Your task to perform on an android device: open app "DoorDash - Food Delivery" Image 0: 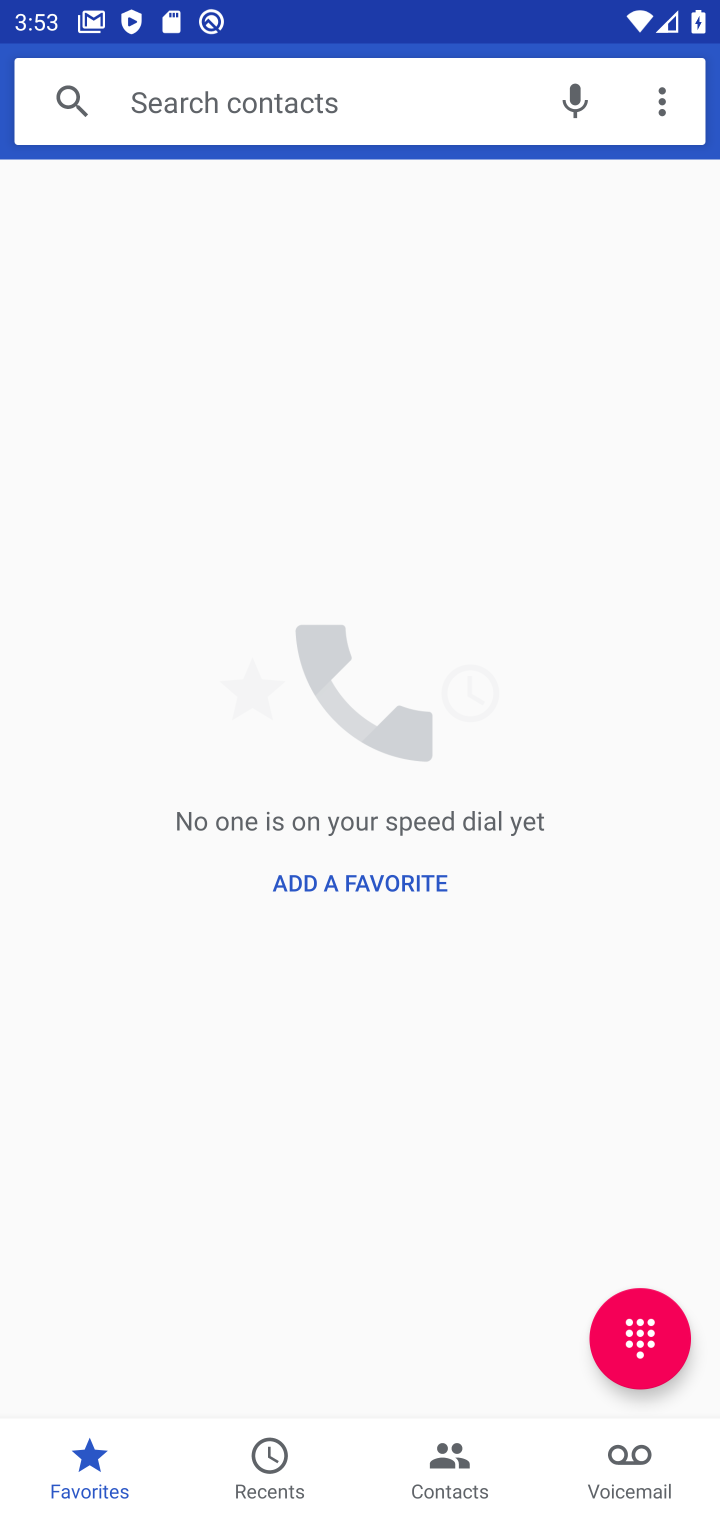
Step 0: press home button
Your task to perform on an android device: open app "DoorDash - Food Delivery" Image 1: 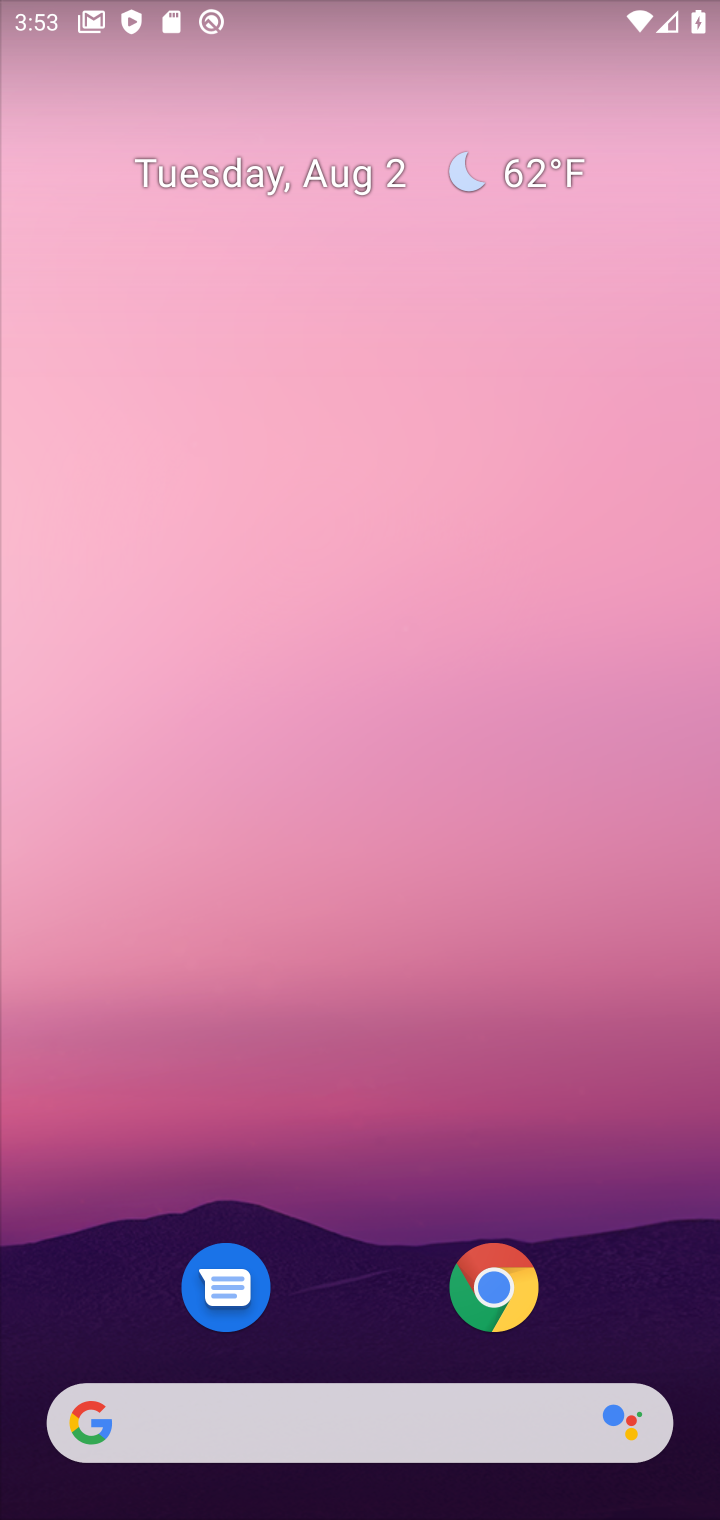
Step 1: drag from (312, 1366) to (264, 7)
Your task to perform on an android device: open app "DoorDash - Food Delivery" Image 2: 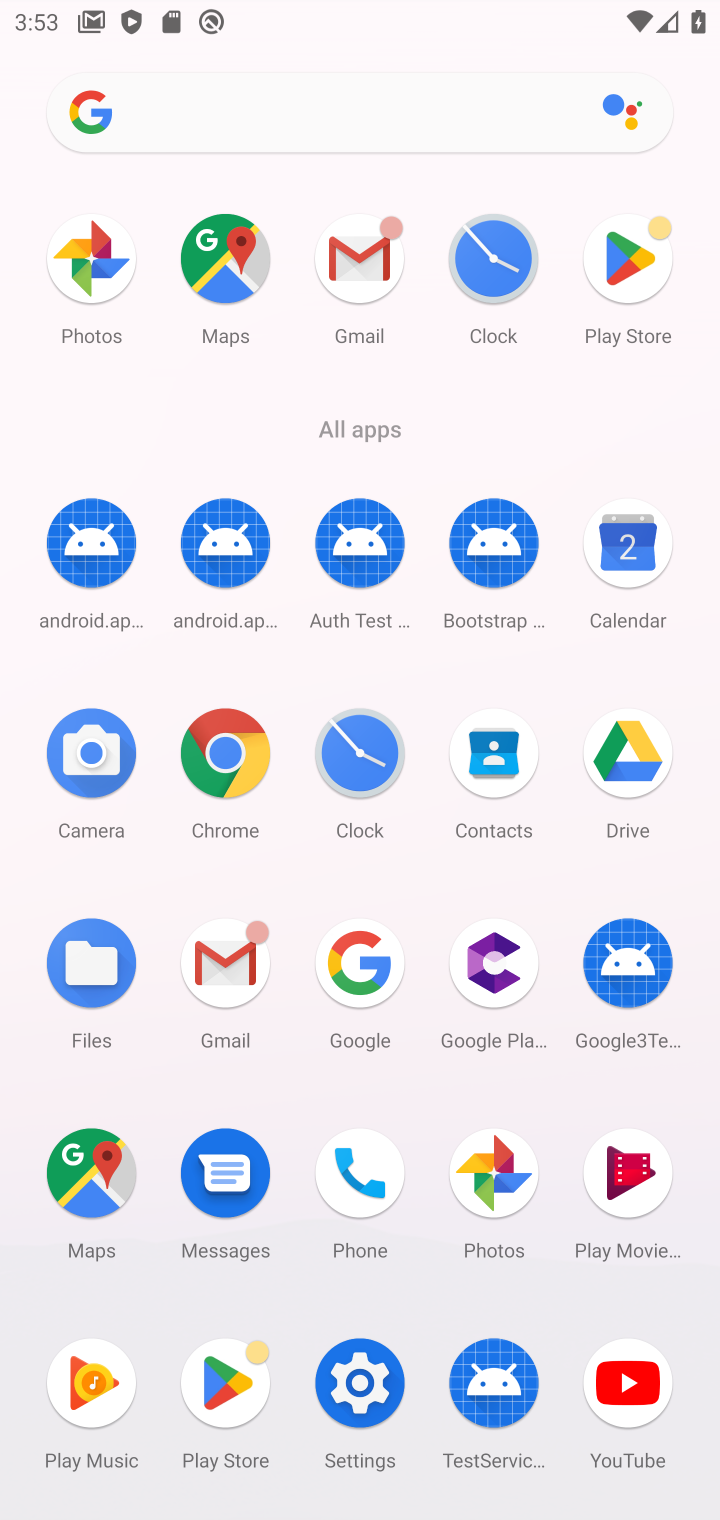
Step 2: click (220, 1366)
Your task to perform on an android device: open app "DoorDash - Food Delivery" Image 3: 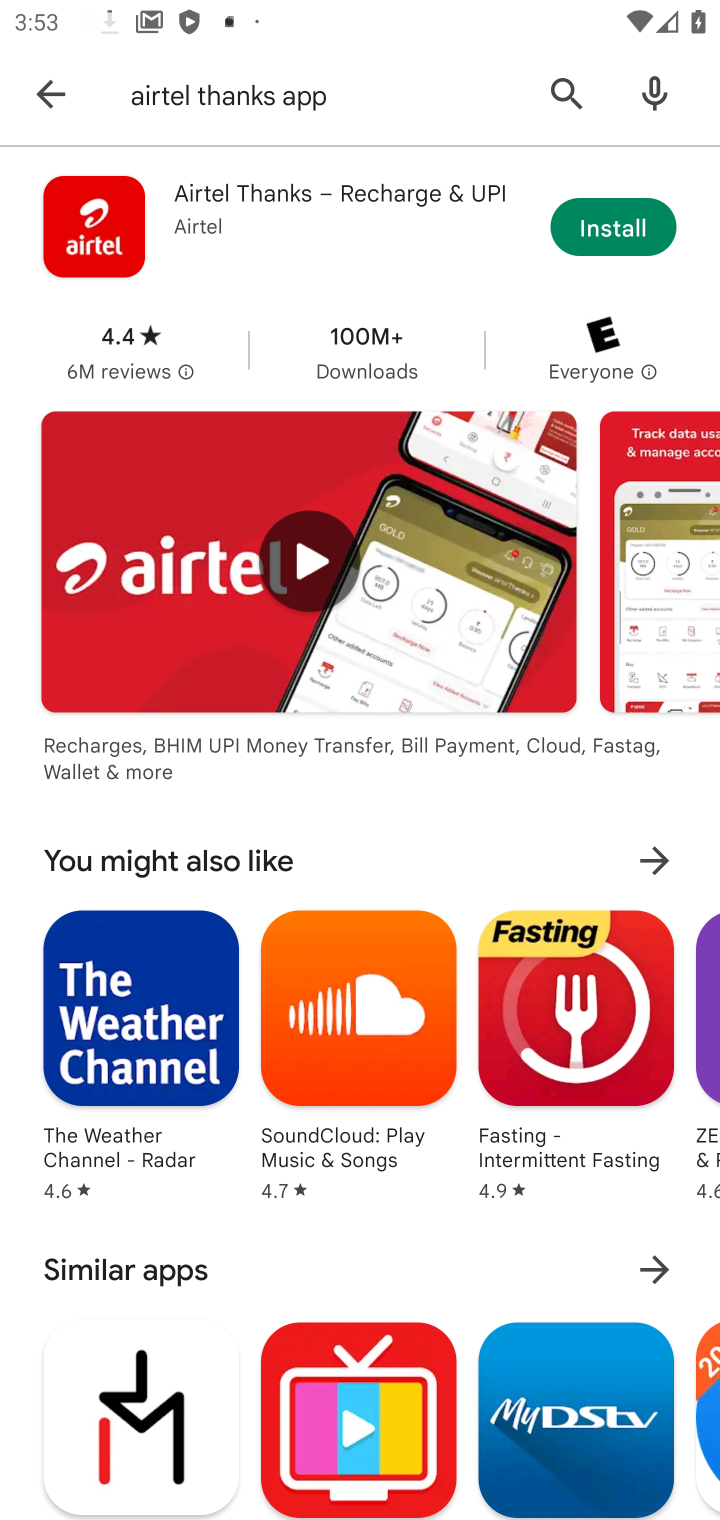
Step 3: click (556, 99)
Your task to perform on an android device: open app "DoorDash - Food Delivery" Image 4: 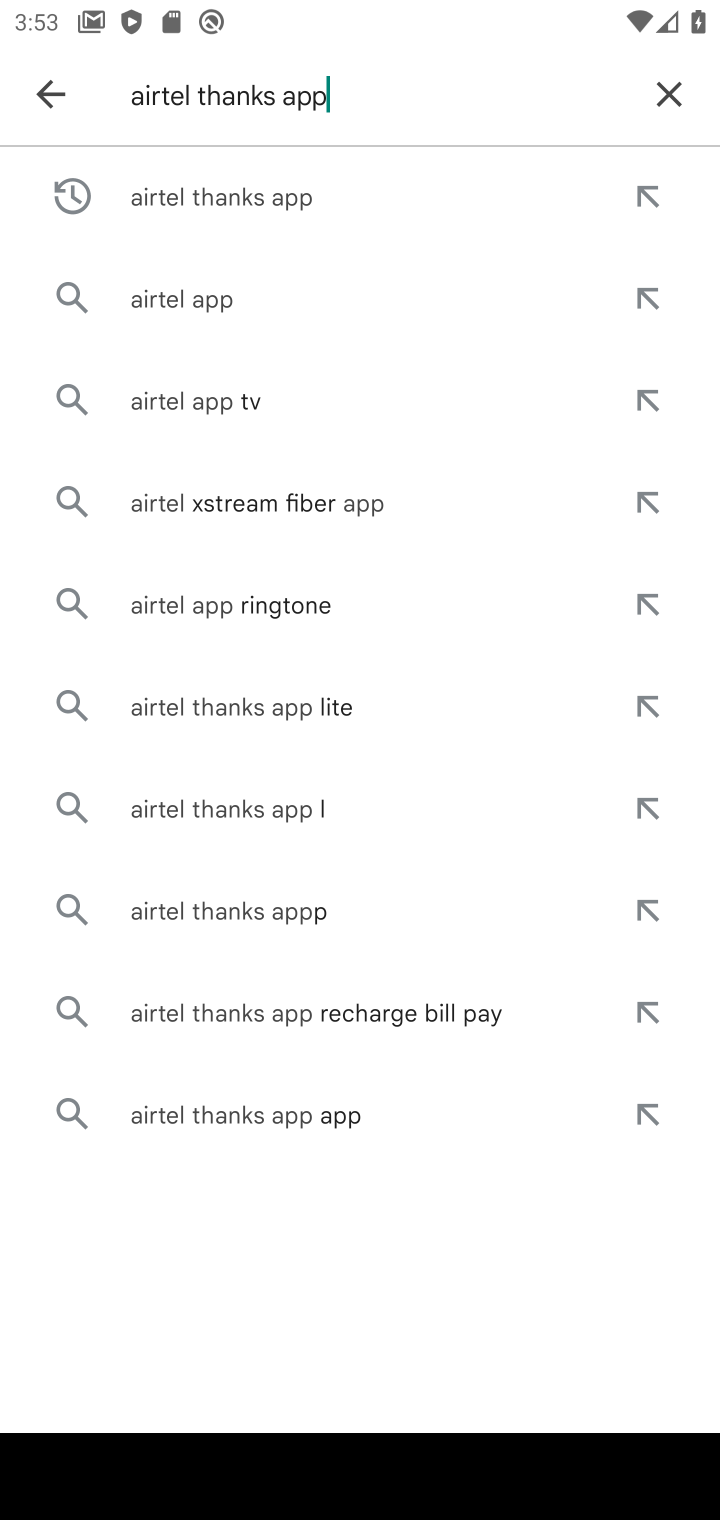
Step 4: click (677, 107)
Your task to perform on an android device: open app "DoorDash - Food Delivery" Image 5: 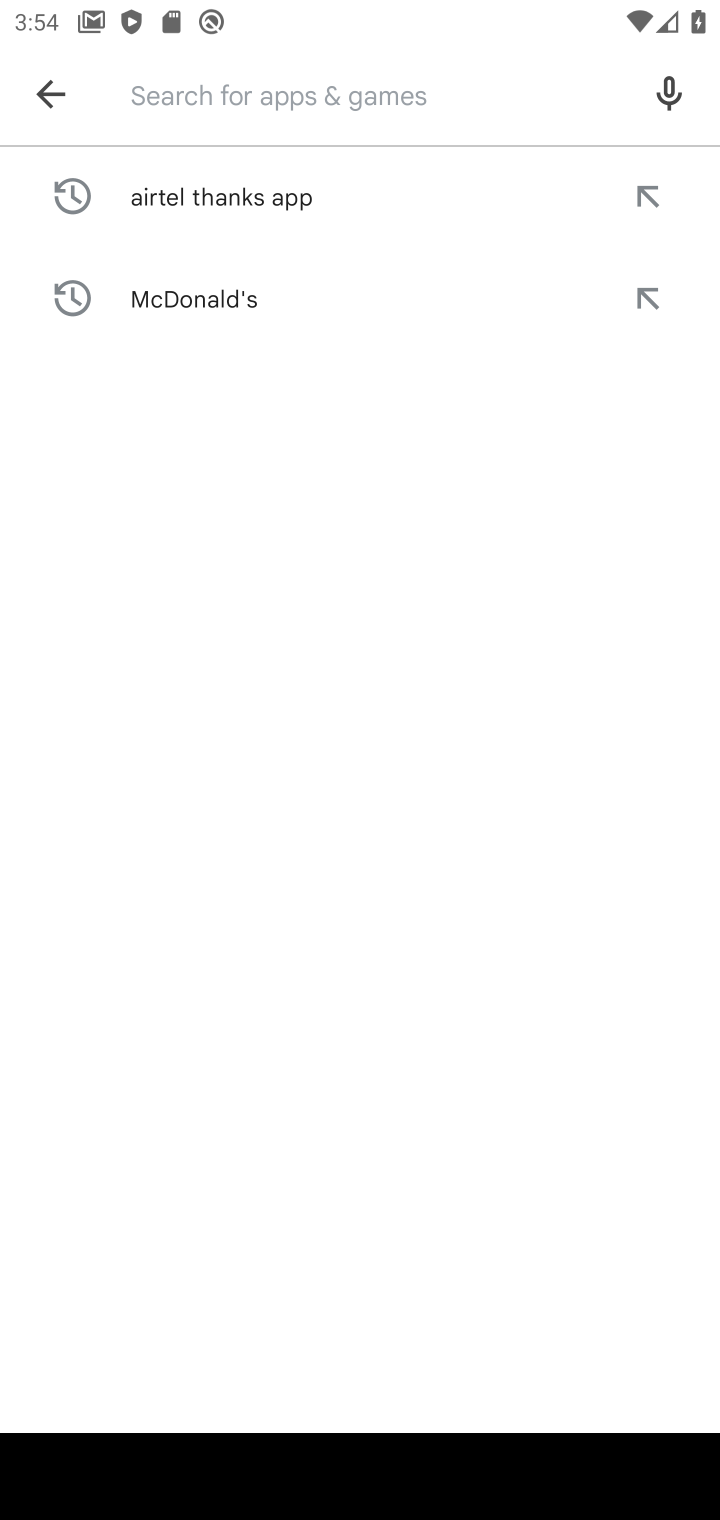
Step 5: type "DoorDash - Food Delivery"
Your task to perform on an android device: open app "DoorDash - Food Delivery" Image 6: 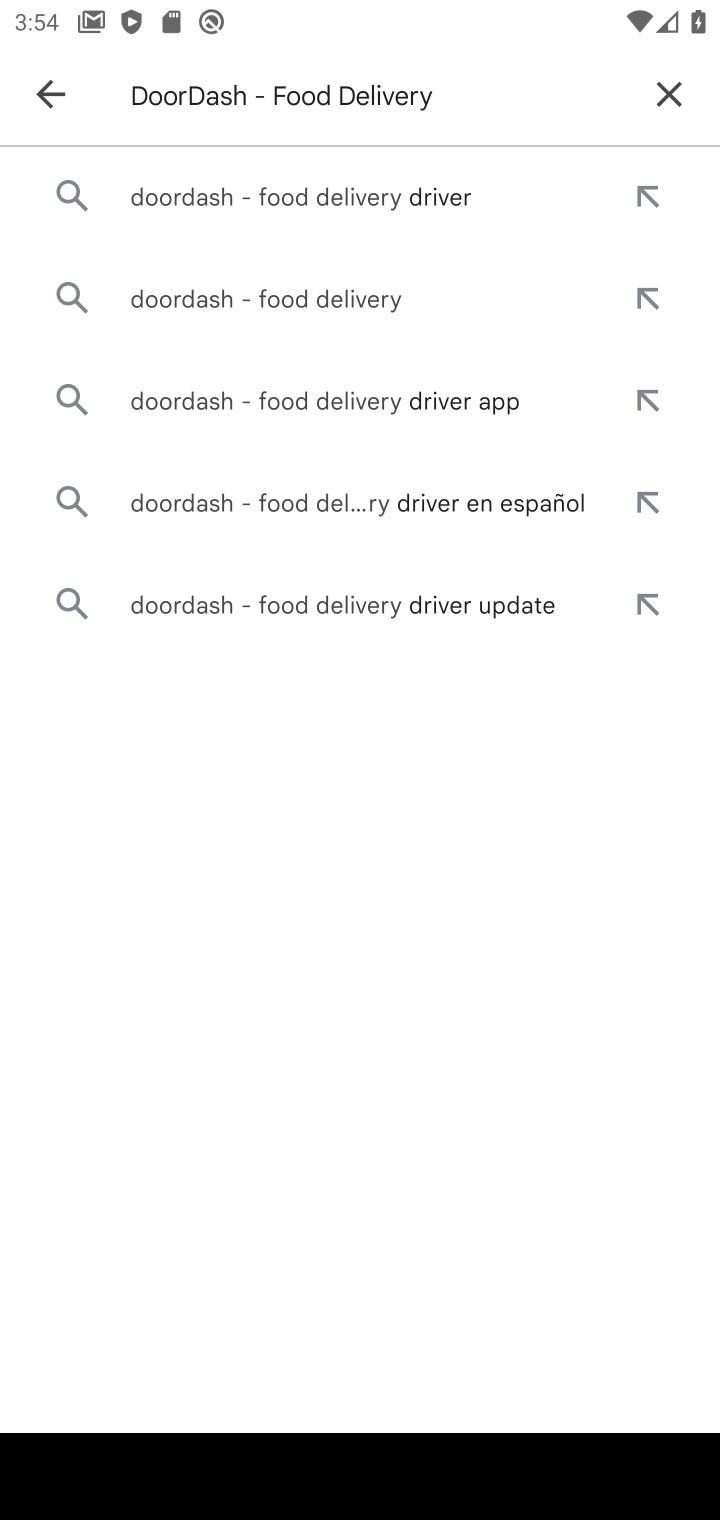
Step 6: click (301, 196)
Your task to perform on an android device: open app "DoorDash - Food Delivery" Image 7: 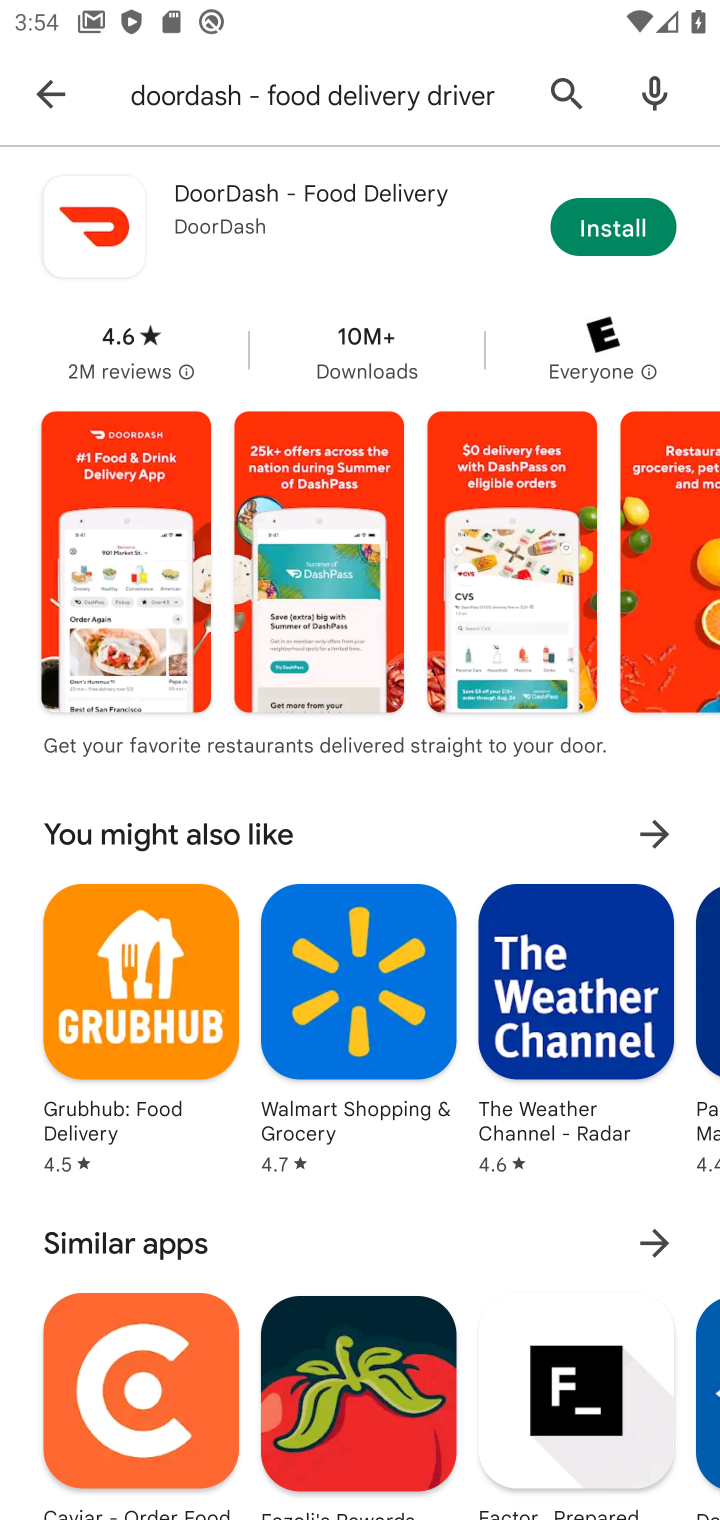
Step 7: task complete